Your task to perform on an android device: Go to Reddit.com Image 0: 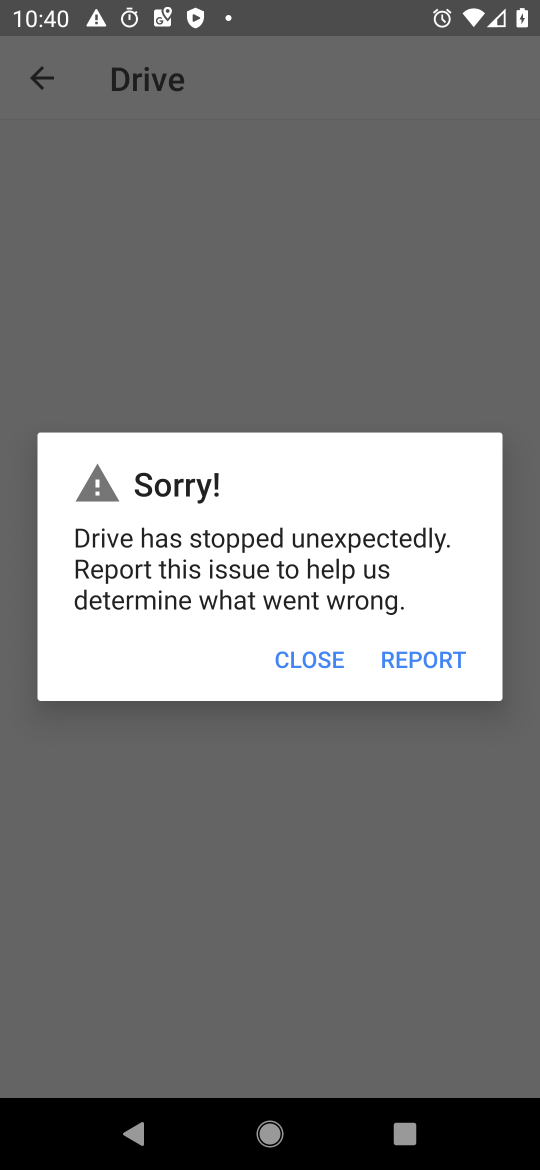
Step 0: press home button
Your task to perform on an android device: Go to Reddit.com Image 1: 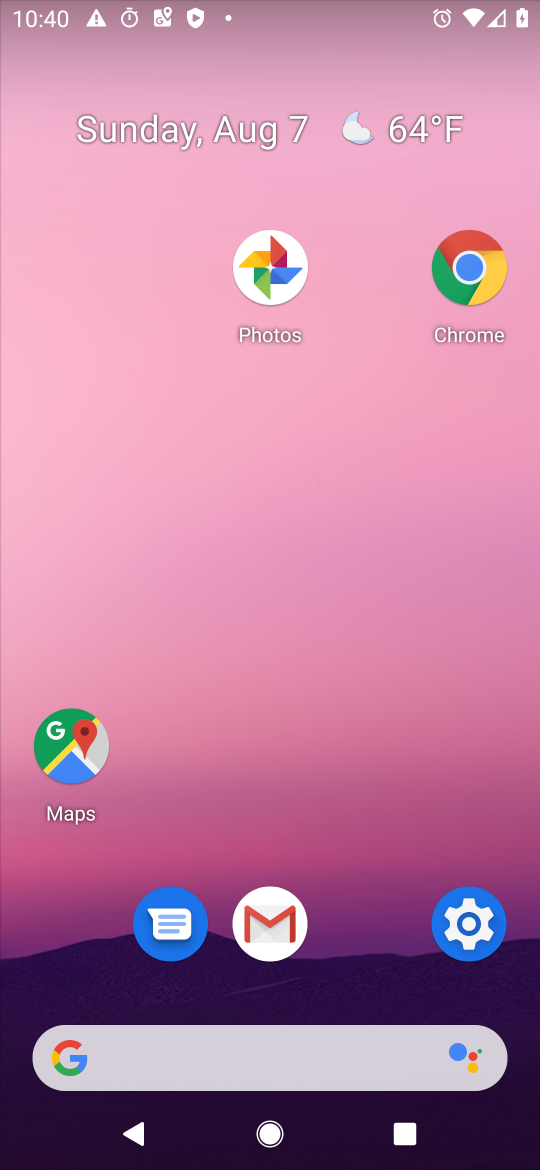
Step 1: click (458, 286)
Your task to perform on an android device: Go to Reddit.com Image 2: 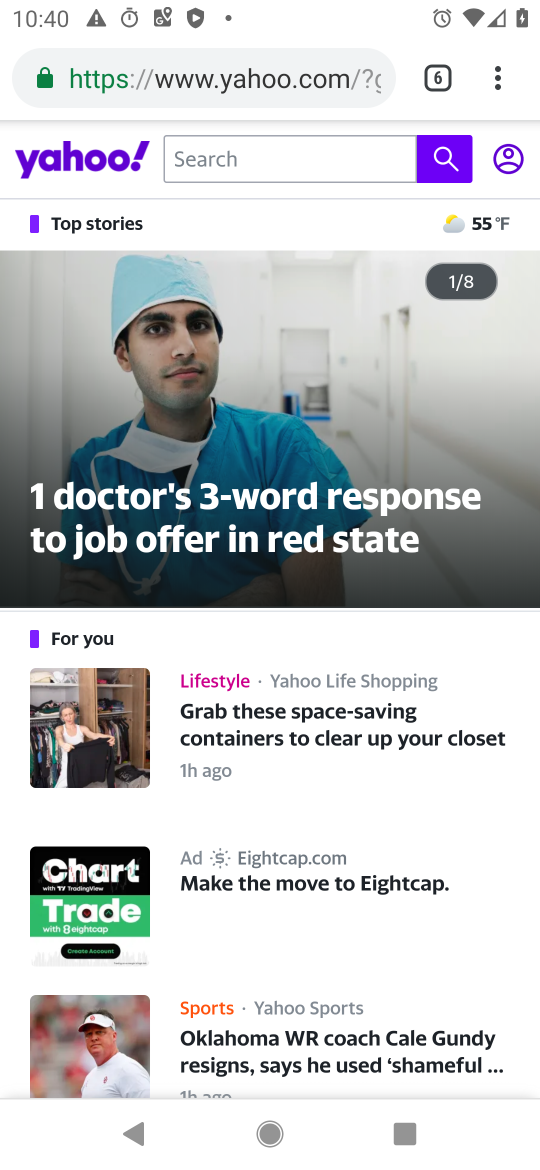
Step 2: click (273, 76)
Your task to perform on an android device: Go to Reddit.com Image 3: 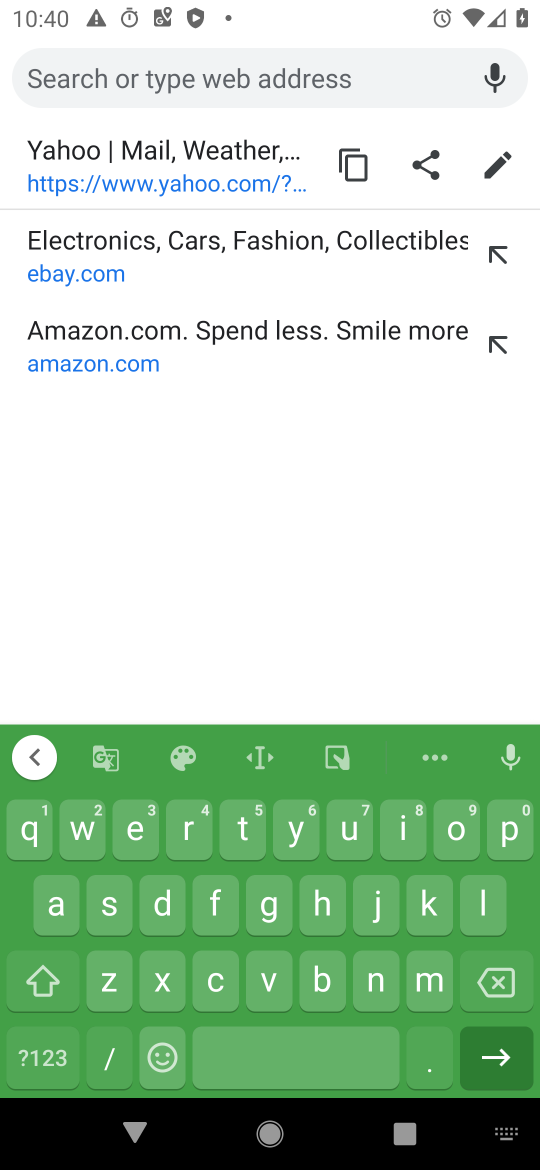
Step 3: click (181, 832)
Your task to perform on an android device: Go to Reddit.com Image 4: 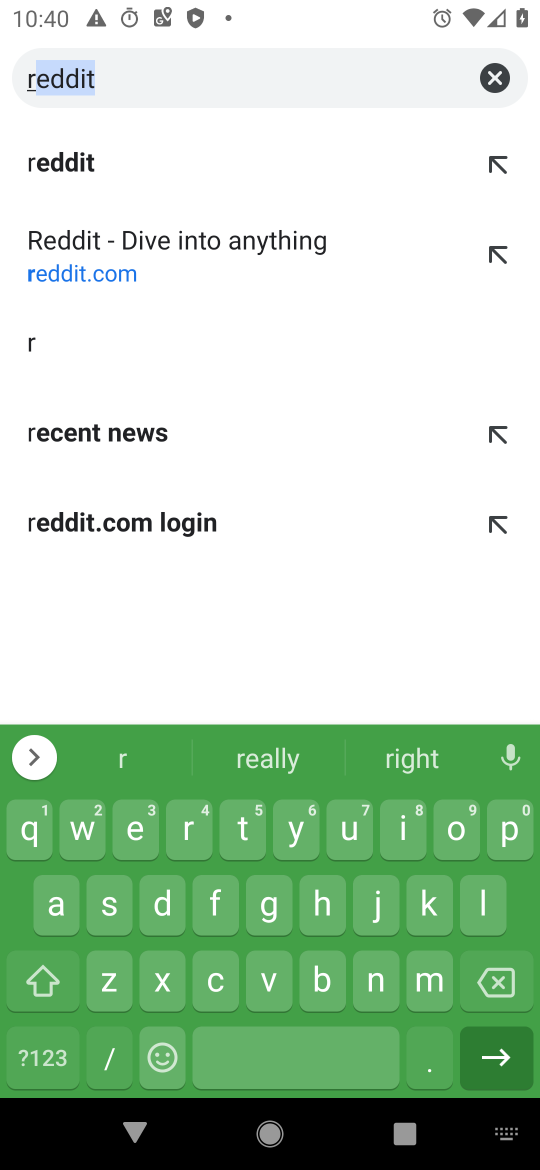
Step 4: click (134, 829)
Your task to perform on an android device: Go to Reddit.com Image 5: 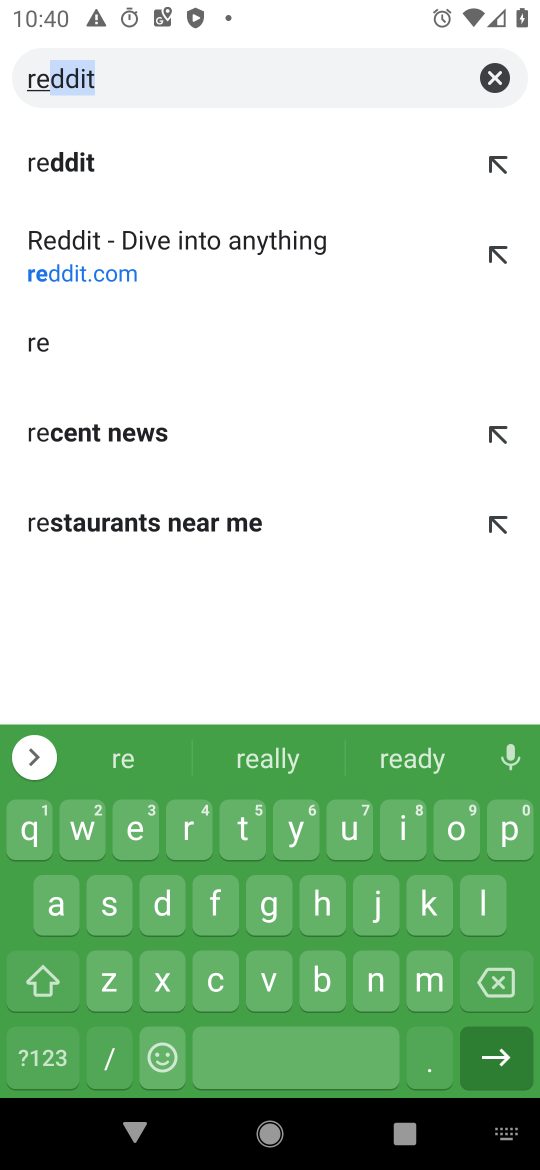
Step 5: click (129, 75)
Your task to perform on an android device: Go to Reddit.com Image 6: 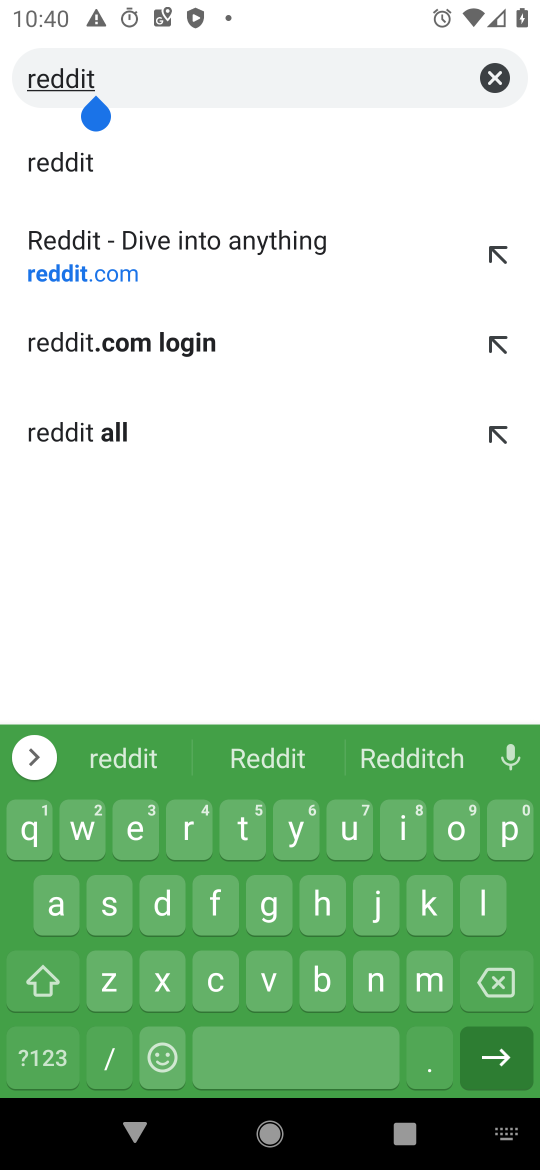
Step 6: click (275, 1070)
Your task to perform on an android device: Go to Reddit.com Image 7: 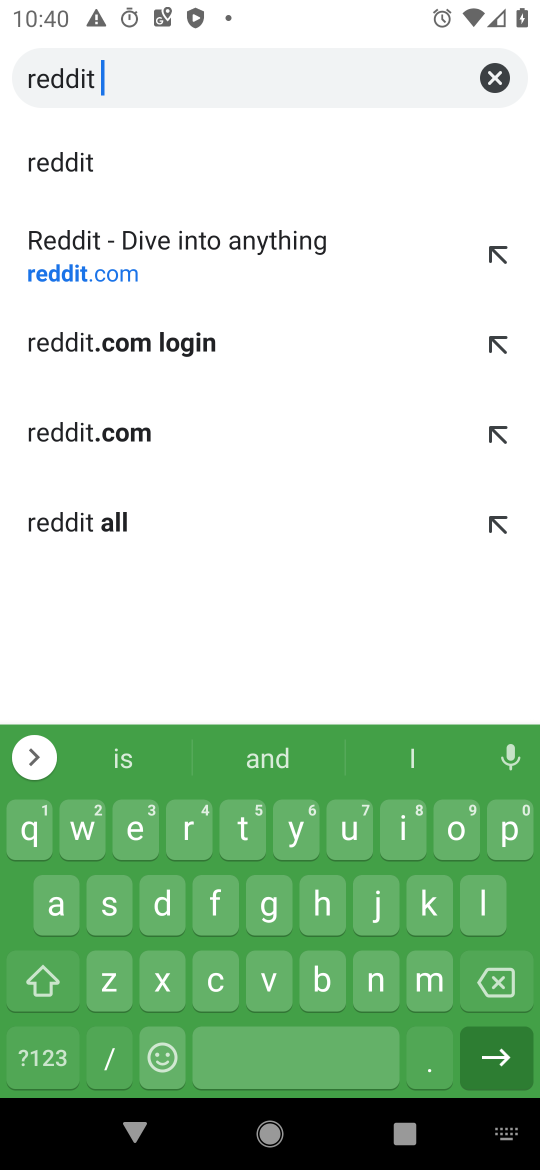
Step 7: click (477, 1063)
Your task to perform on an android device: Go to Reddit.com Image 8: 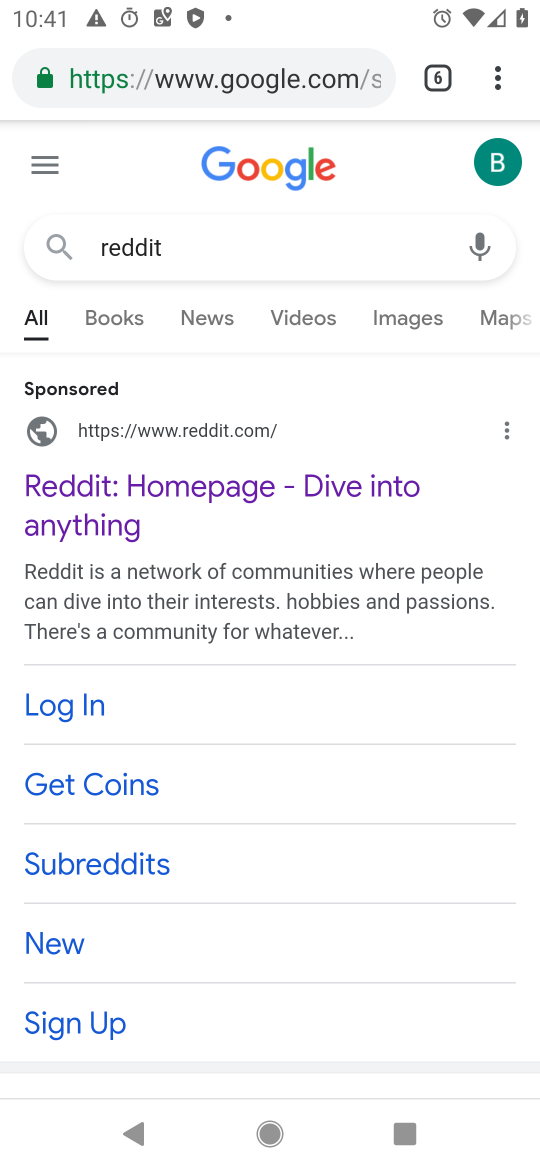
Step 8: click (68, 490)
Your task to perform on an android device: Go to Reddit.com Image 9: 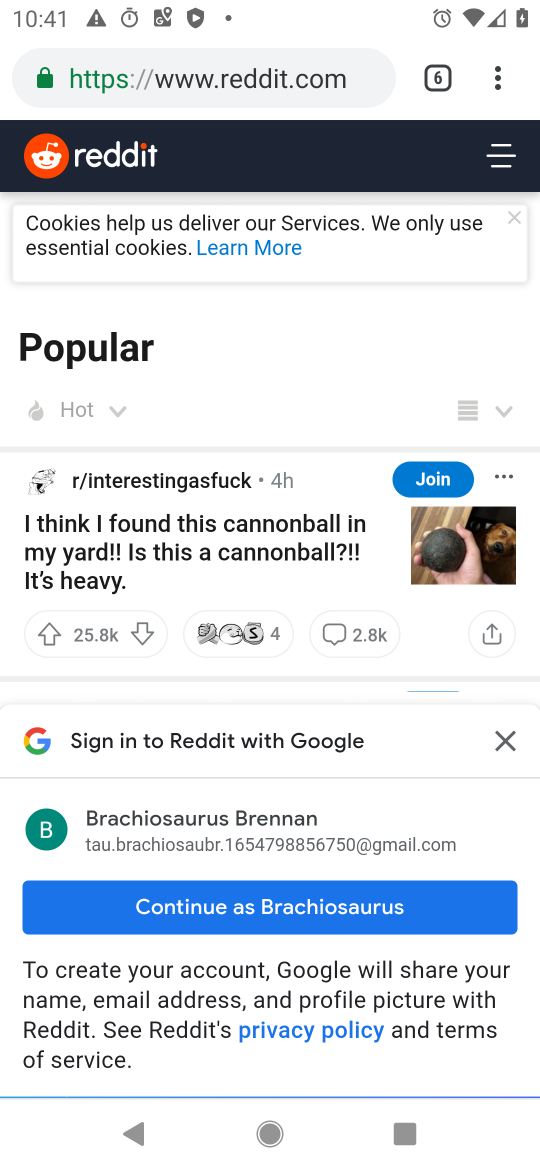
Step 9: task complete